Your task to perform on an android device: change the upload size in google photos Image 0: 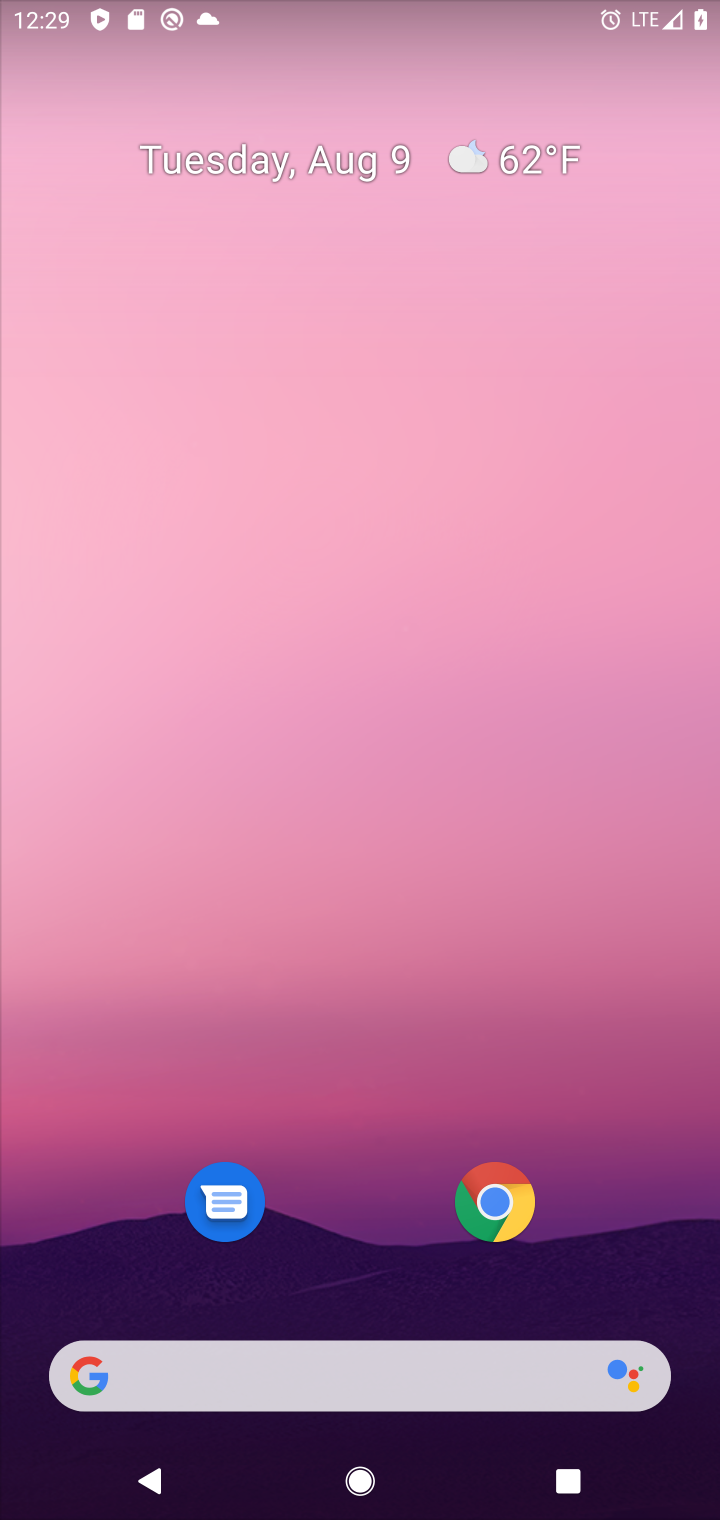
Step 0: drag from (332, 856) to (444, 105)
Your task to perform on an android device: change the upload size in google photos Image 1: 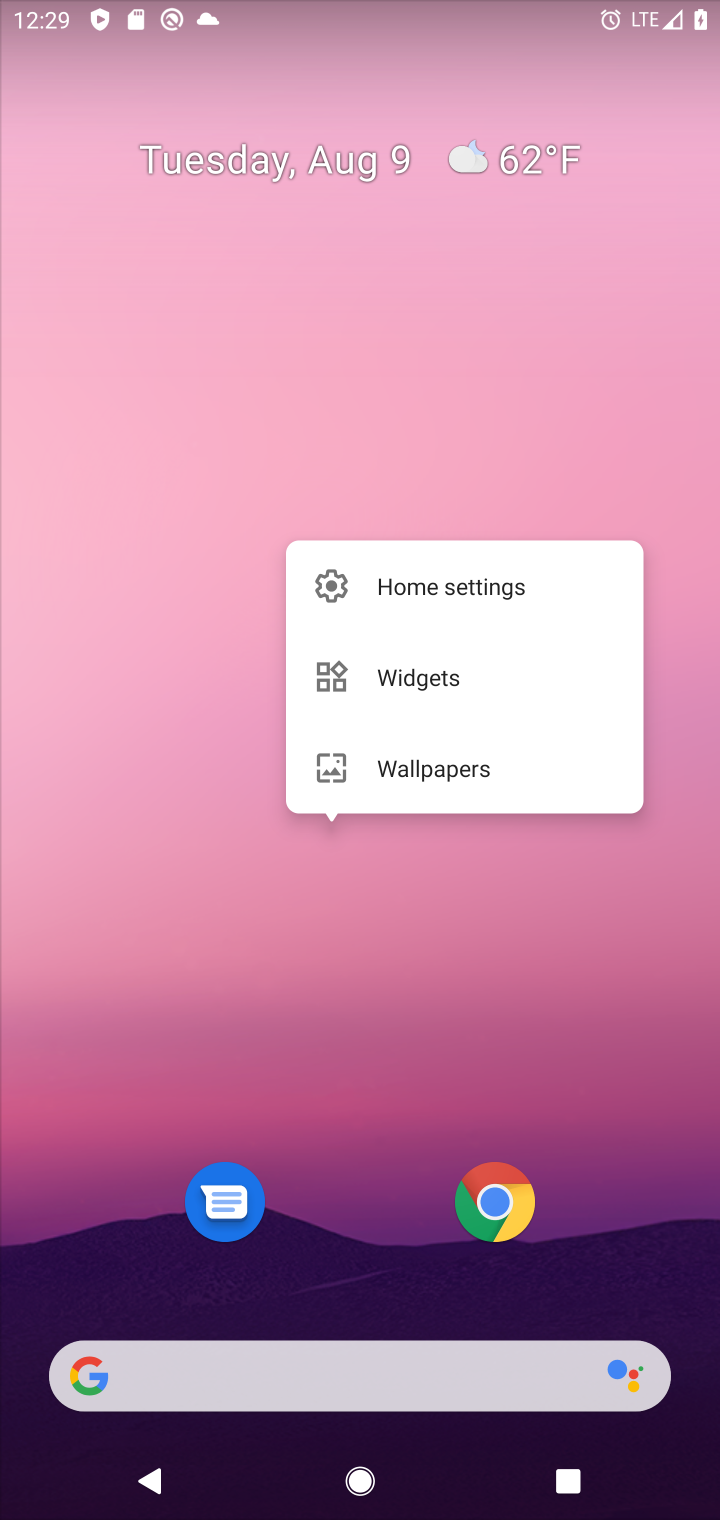
Step 1: click (315, 146)
Your task to perform on an android device: change the upload size in google photos Image 2: 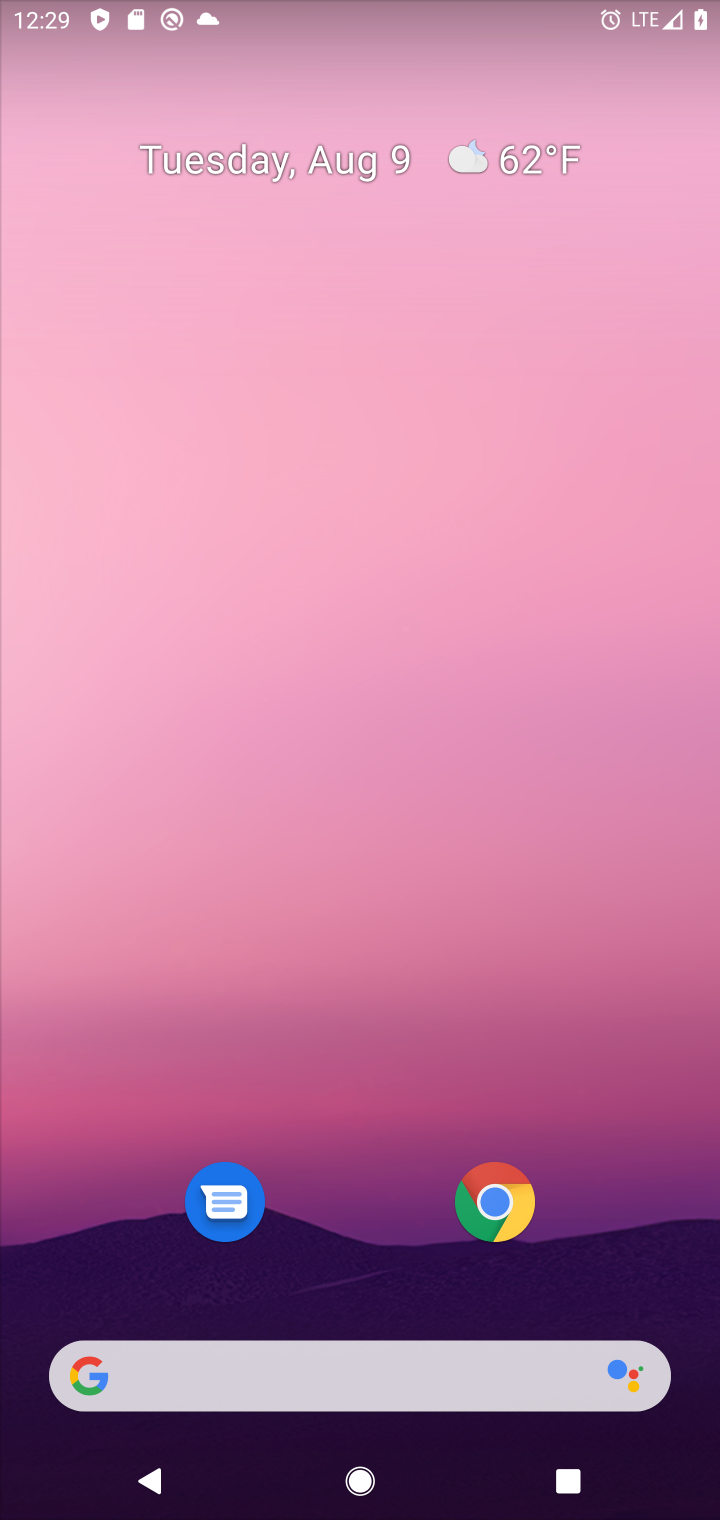
Step 2: drag from (402, 7) to (383, 217)
Your task to perform on an android device: change the upload size in google photos Image 3: 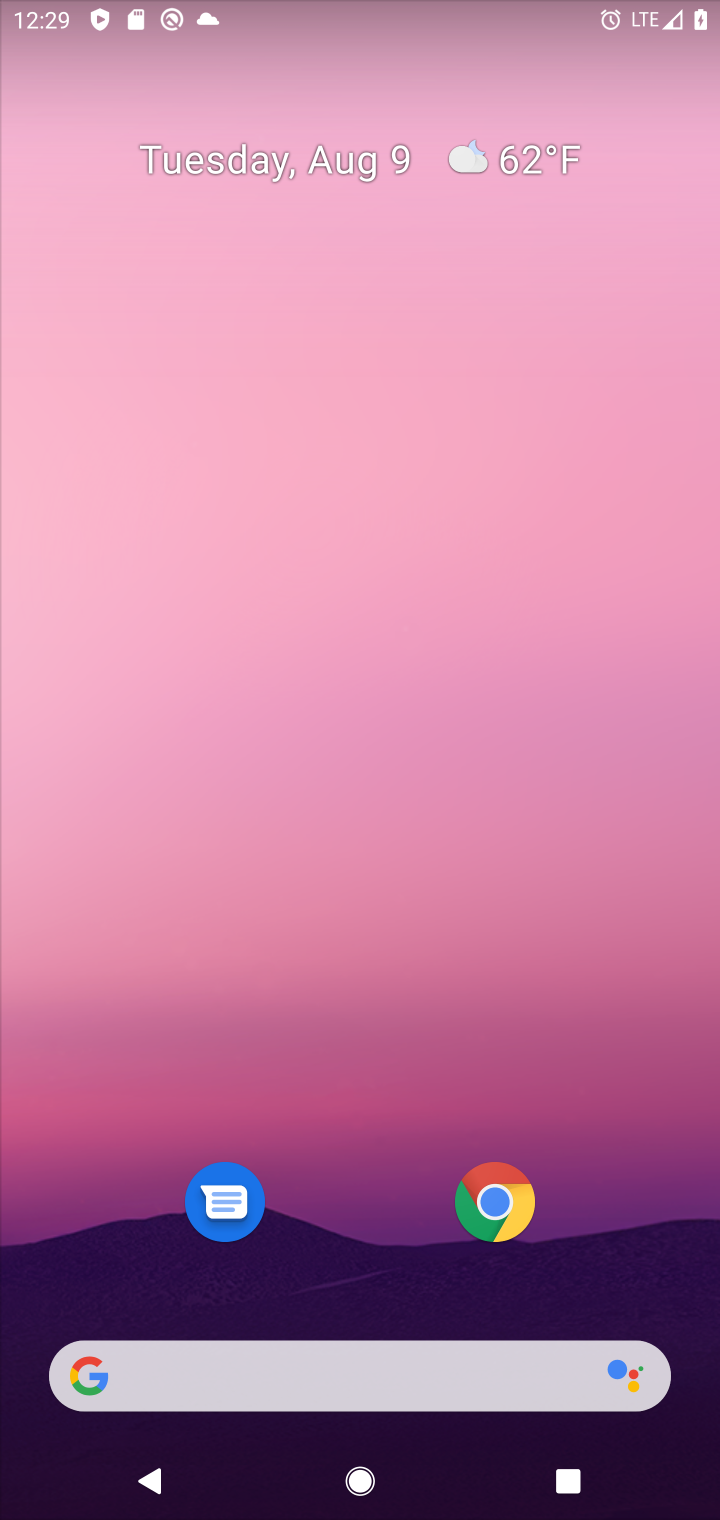
Step 3: drag from (300, 1204) to (440, 135)
Your task to perform on an android device: change the upload size in google photos Image 4: 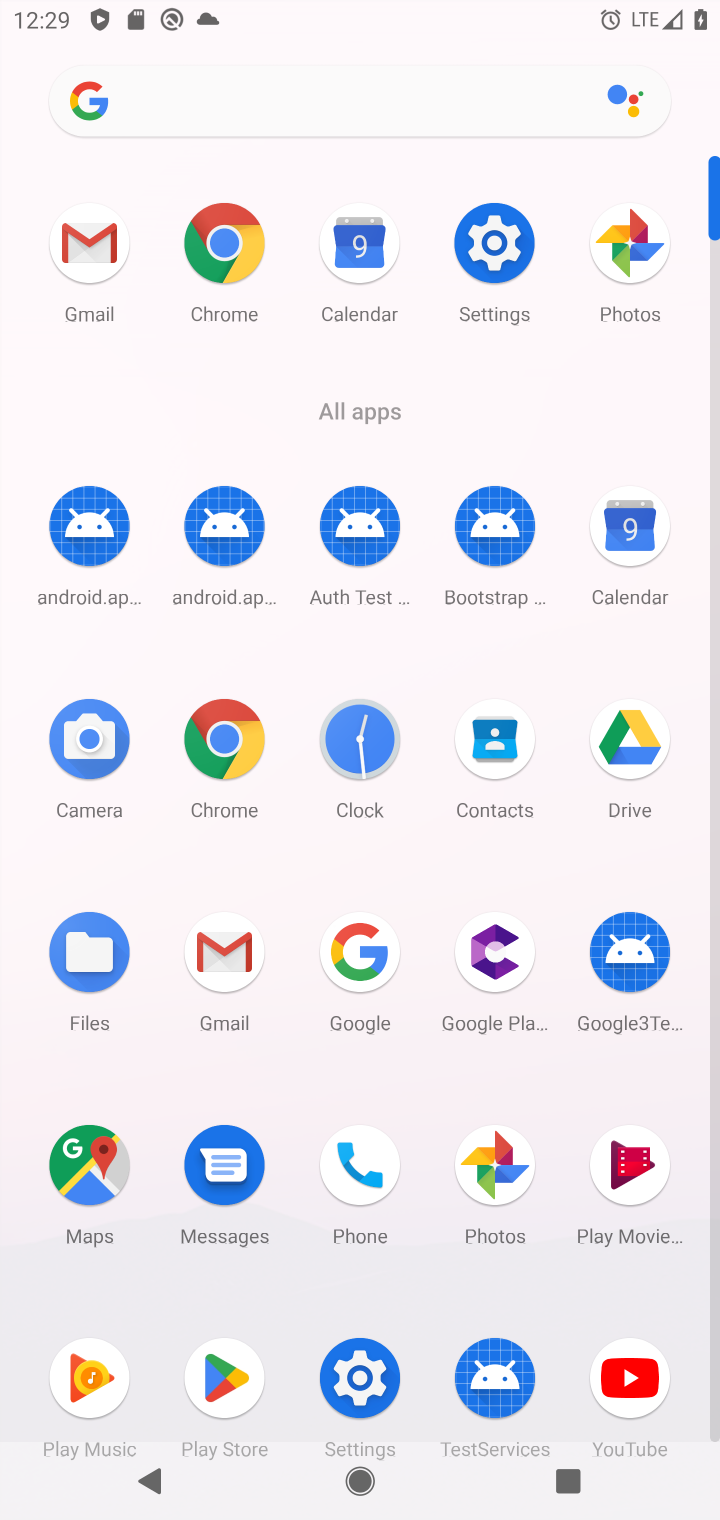
Step 4: click (487, 1171)
Your task to perform on an android device: change the upload size in google photos Image 5: 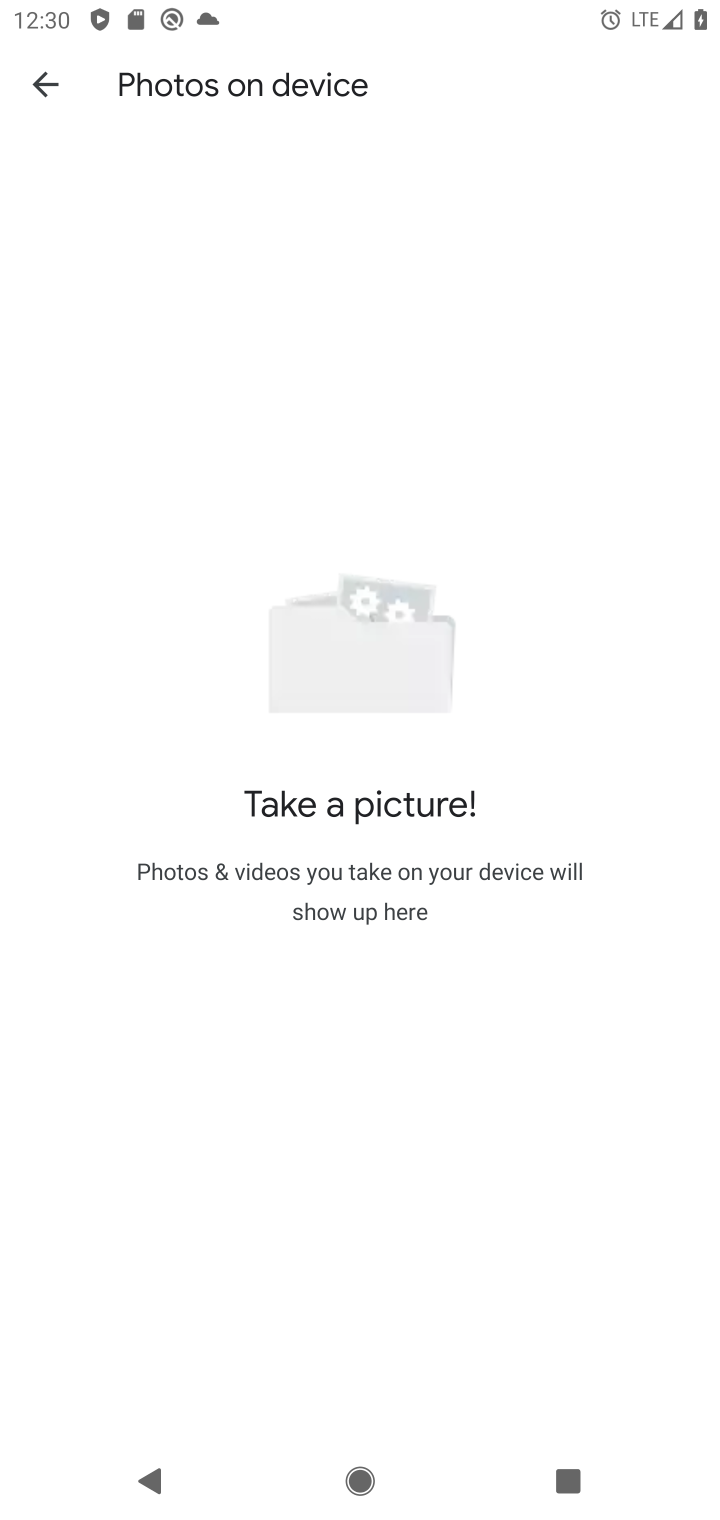
Step 5: click (37, 89)
Your task to perform on an android device: change the upload size in google photos Image 6: 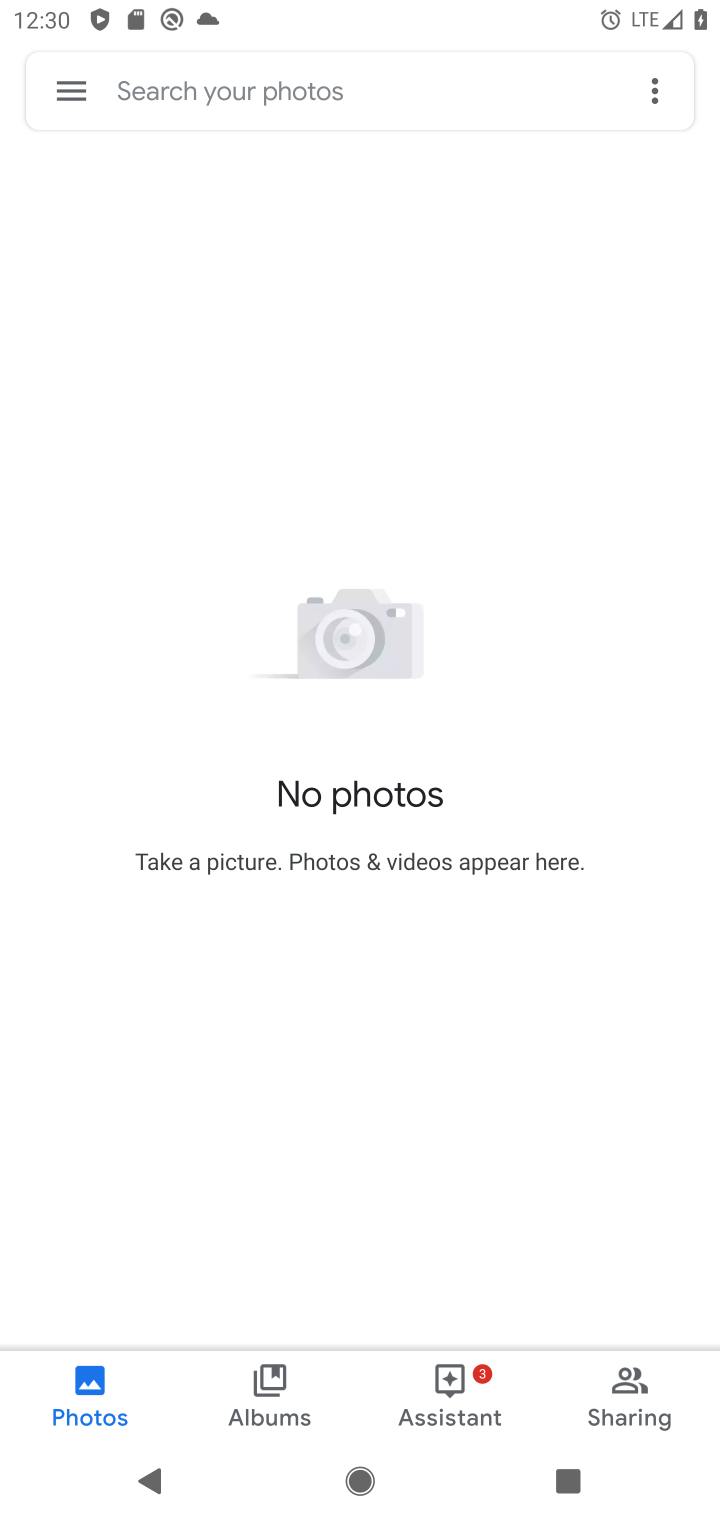
Step 6: click (69, 80)
Your task to perform on an android device: change the upload size in google photos Image 7: 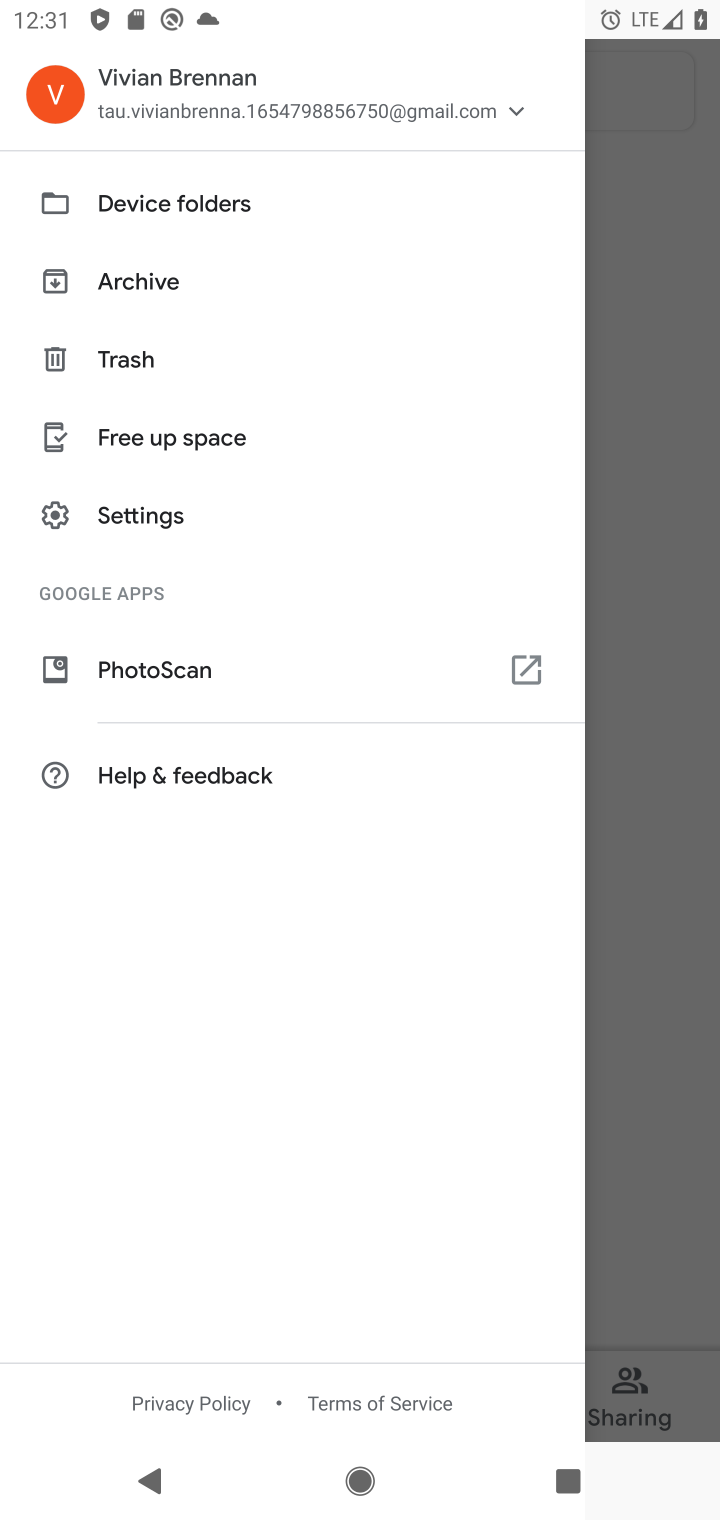
Step 7: click (120, 518)
Your task to perform on an android device: change the upload size in google photos Image 8: 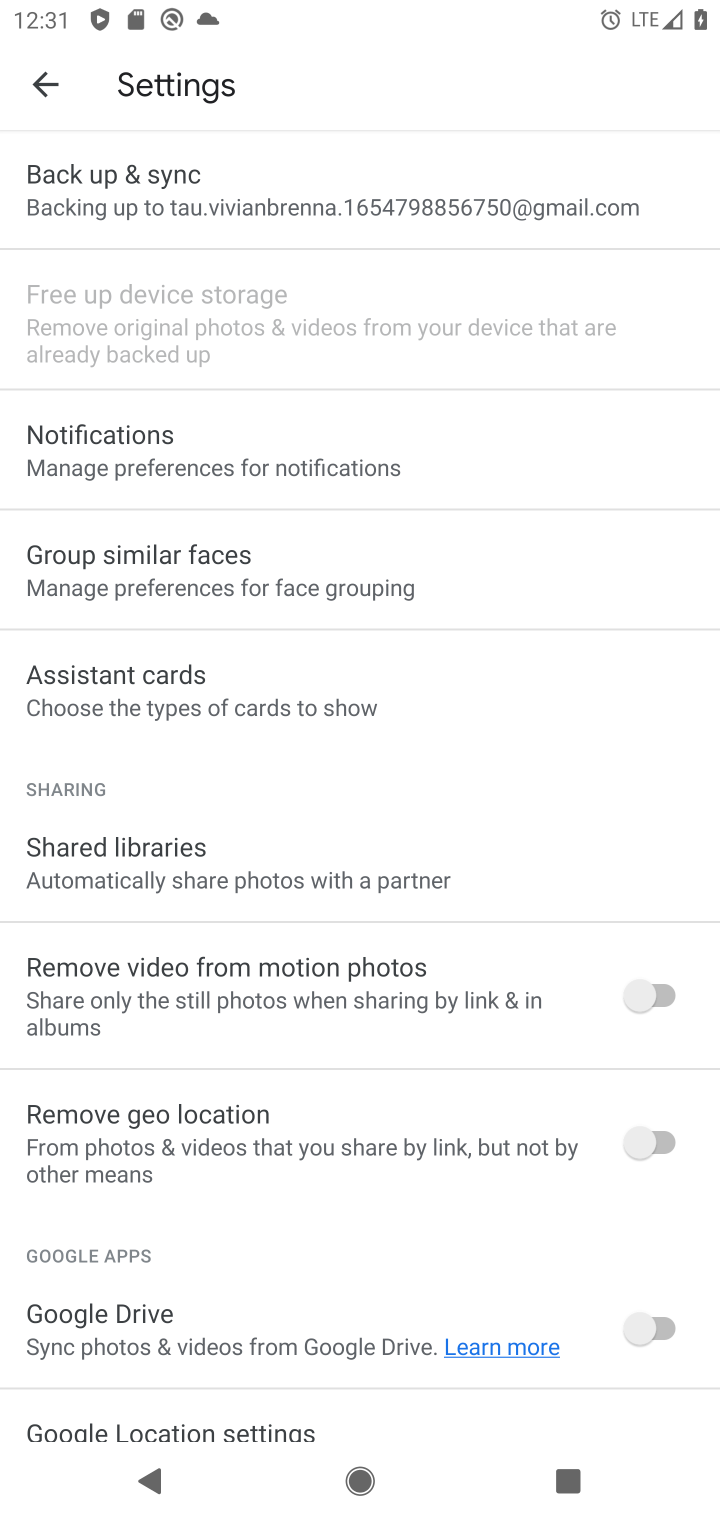
Step 8: click (331, 191)
Your task to perform on an android device: change the upload size in google photos Image 9: 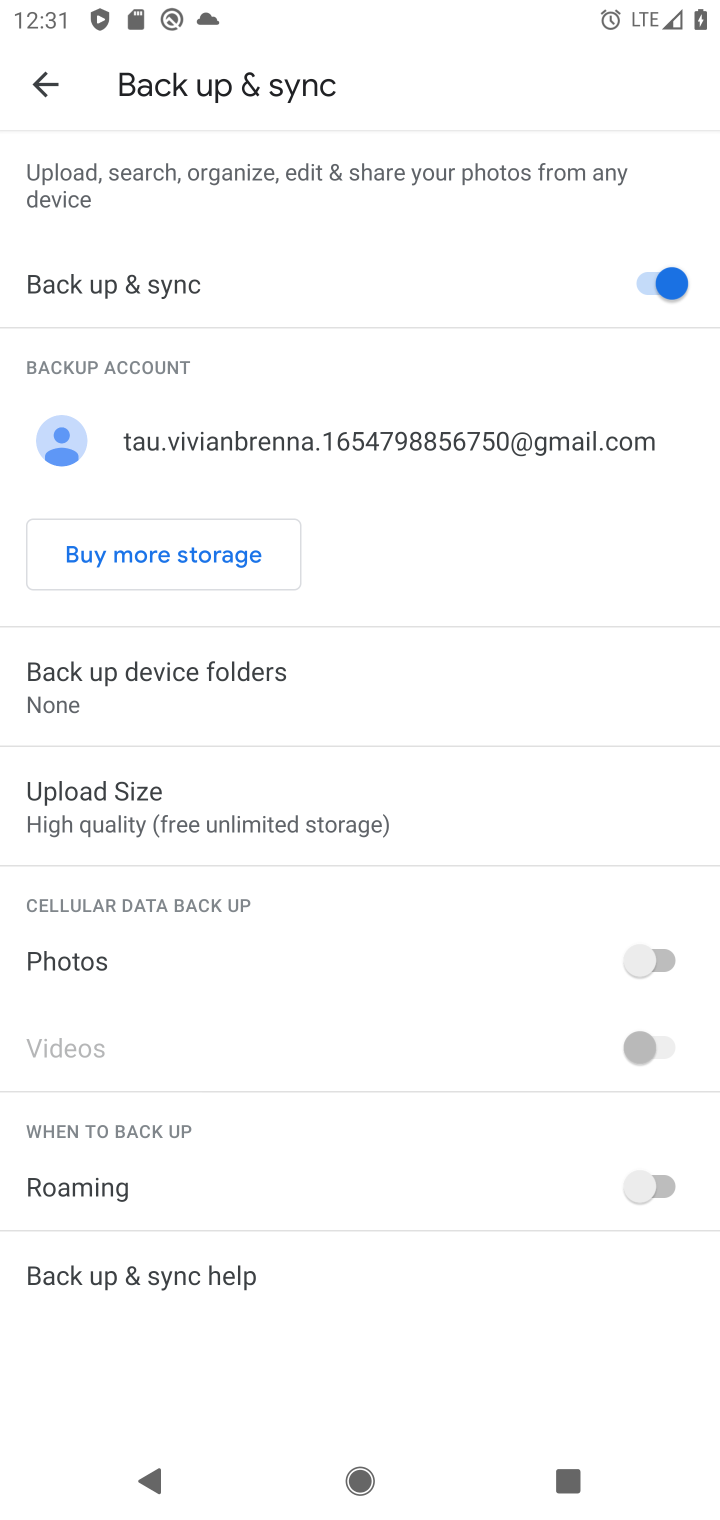
Step 9: click (296, 828)
Your task to perform on an android device: change the upload size in google photos Image 10: 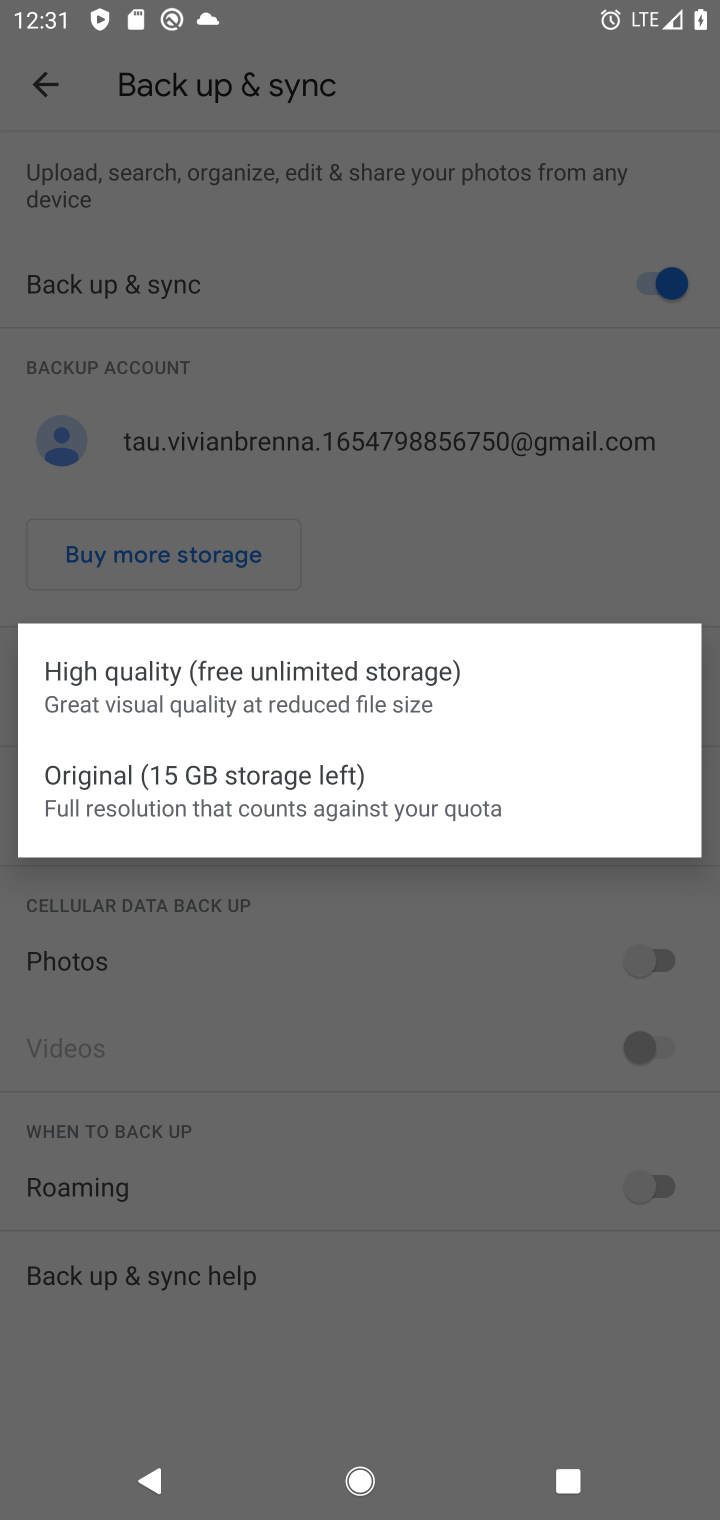
Step 10: click (153, 772)
Your task to perform on an android device: change the upload size in google photos Image 11: 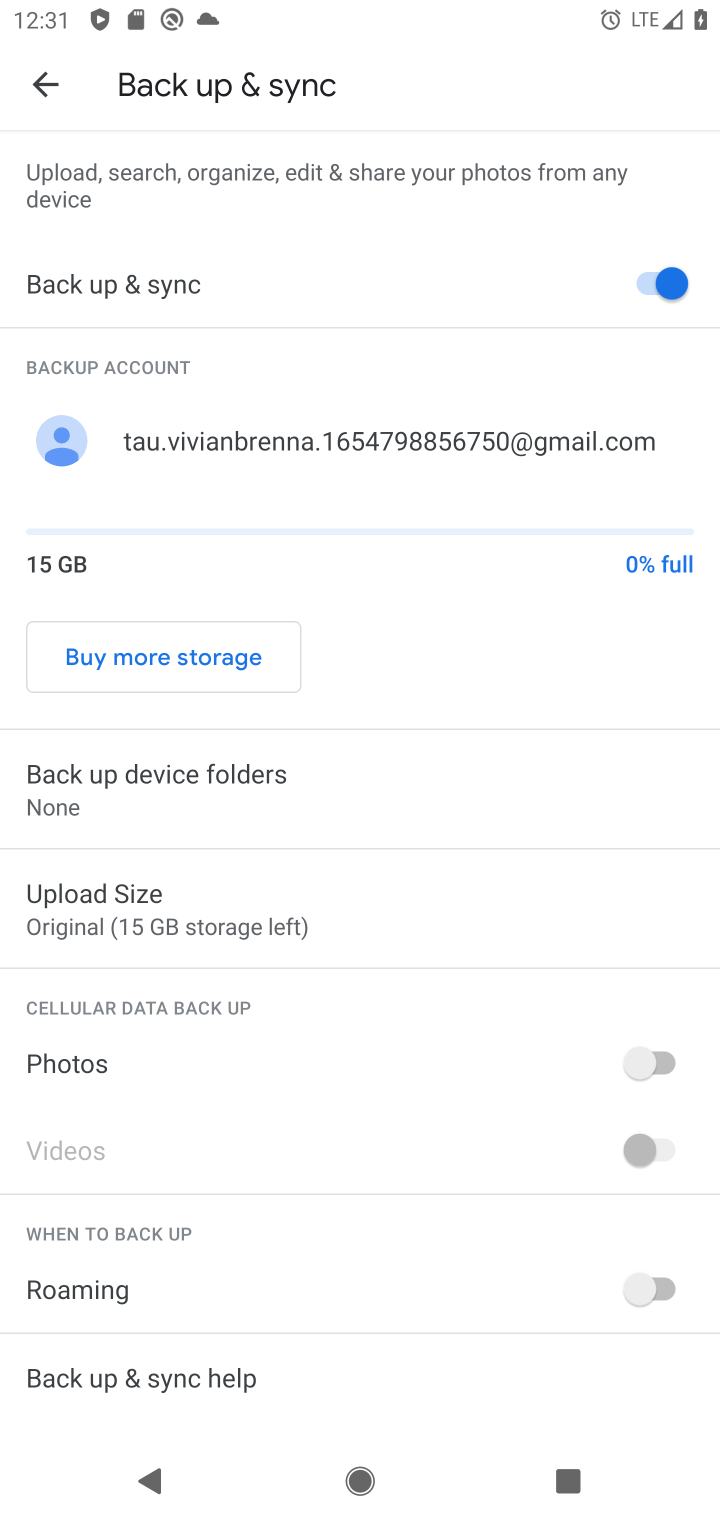
Step 11: task complete